Your task to perform on an android device: Open ESPN.com Image 0: 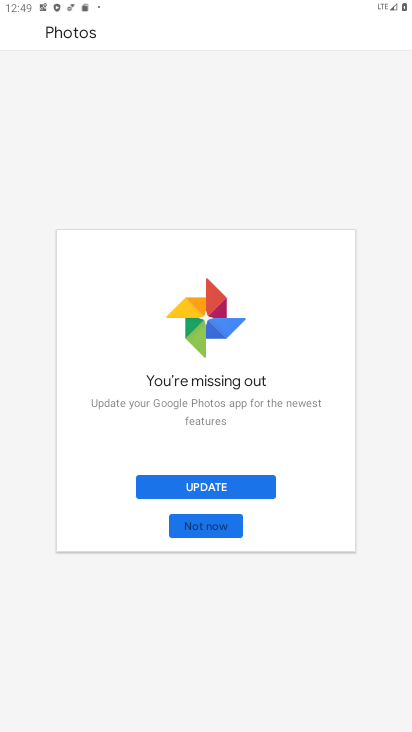
Step 0: press home button
Your task to perform on an android device: Open ESPN.com Image 1: 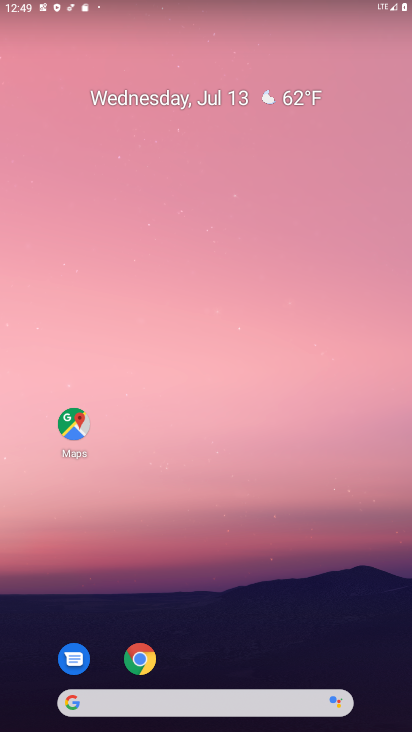
Step 1: click (142, 658)
Your task to perform on an android device: Open ESPN.com Image 2: 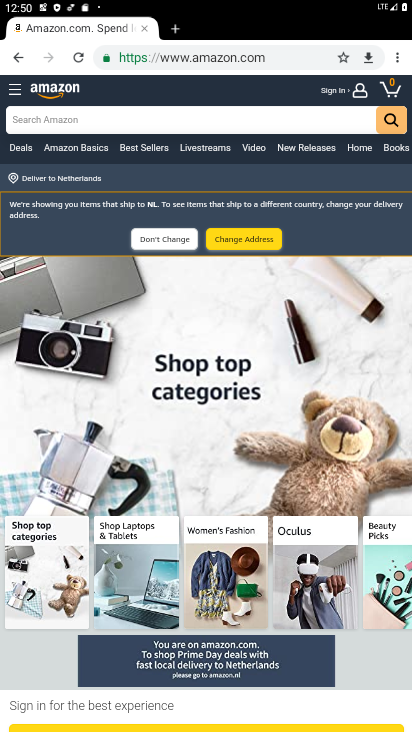
Step 2: click (398, 56)
Your task to perform on an android device: Open ESPN.com Image 3: 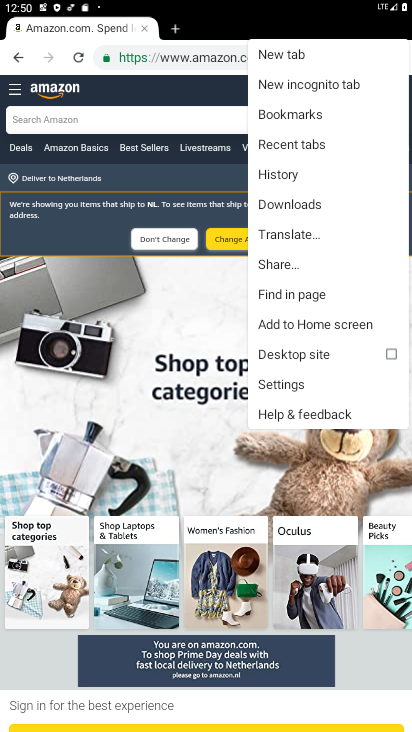
Step 3: click (276, 51)
Your task to perform on an android device: Open ESPN.com Image 4: 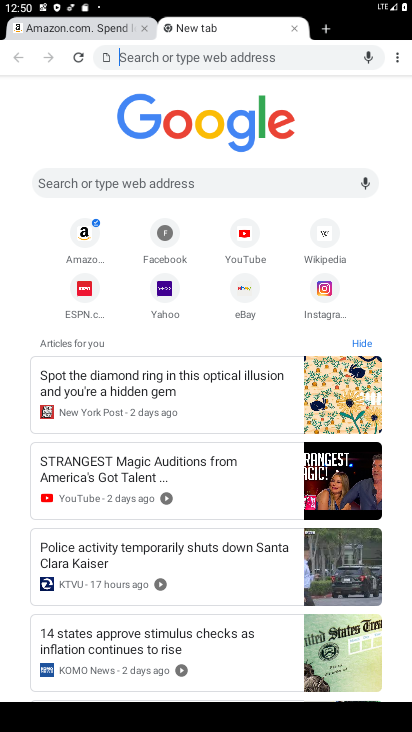
Step 4: click (79, 291)
Your task to perform on an android device: Open ESPN.com Image 5: 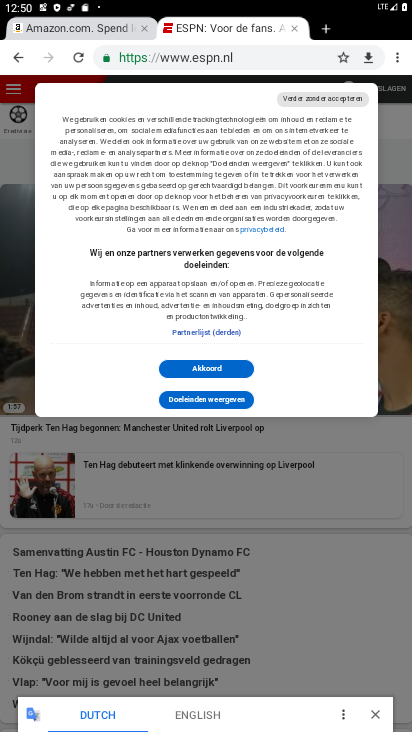
Step 5: click (201, 367)
Your task to perform on an android device: Open ESPN.com Image 6: 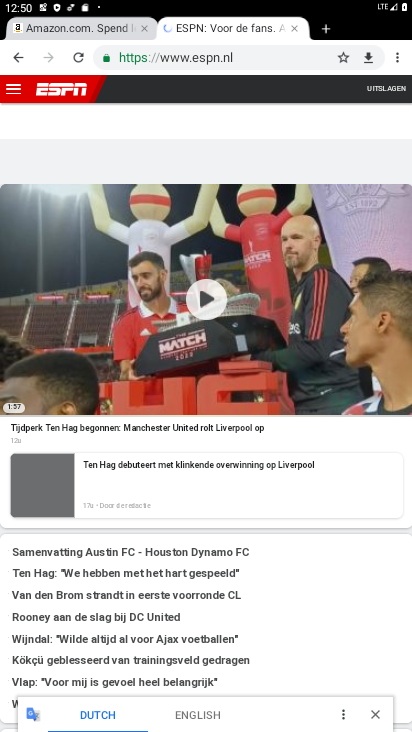
Step 6: task complete